Your task to perform on an android device: Search for the best rated wireless headphones on Amazon. Image 0: 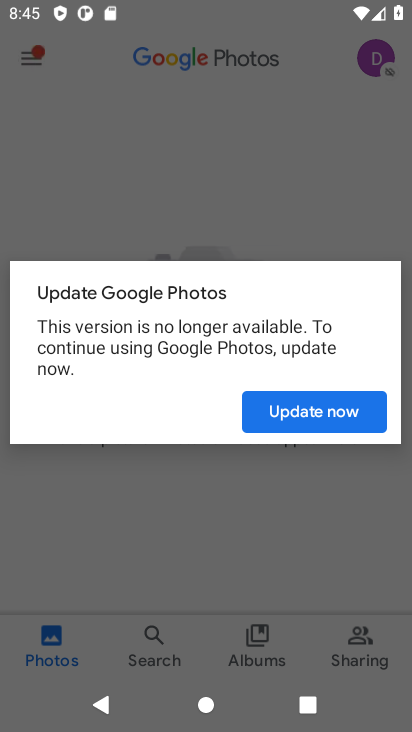
Step 0: press home button
Your task to perform on an android device: Search for the best rated wireless headphones on Amazon. Image 1: 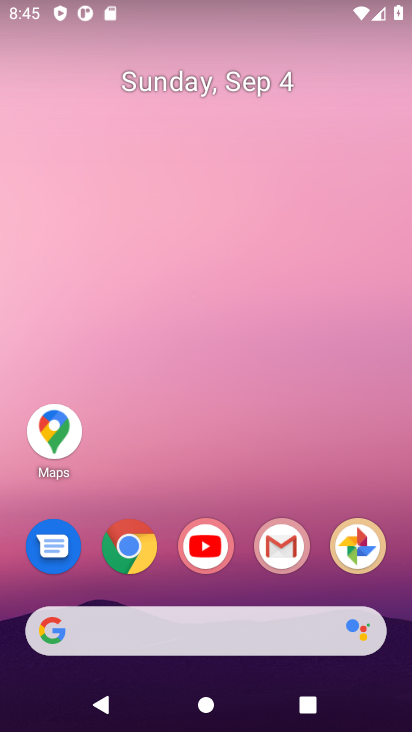
Step 1: click (133, 541)
Your task to perform on an android device: Search for the best rated wireless headphones on Amazon. Image 2: 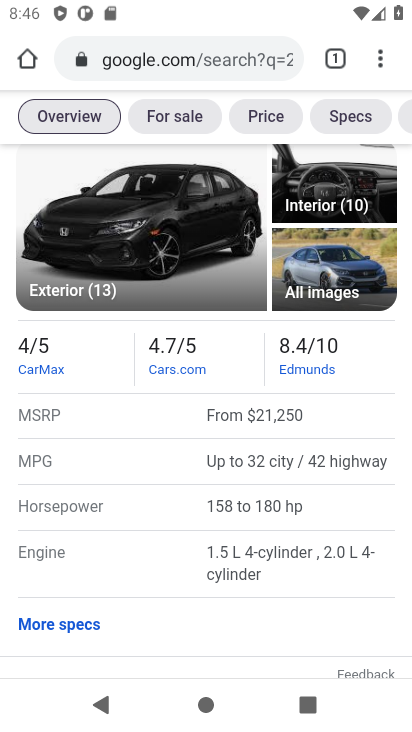
Step 2: click (170, 49)
Your task to perform on an android device: Search for the best rated wireless headphones on Amazon. Image 3: 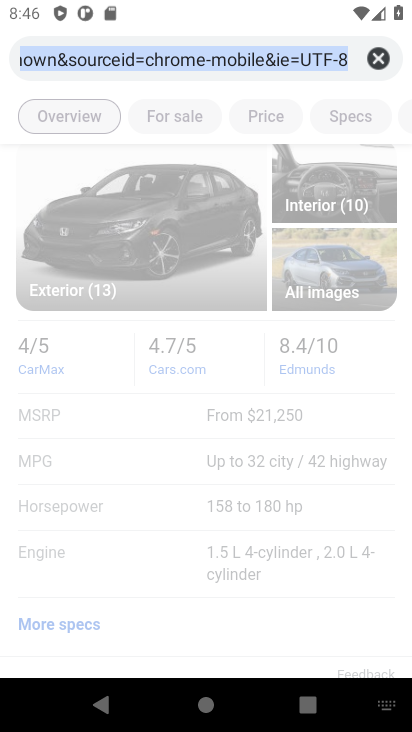
Step 3: click (370, 60)
Your task to perform on an android device: Search for the best rated wireless headphones on Amazon. Image 4: 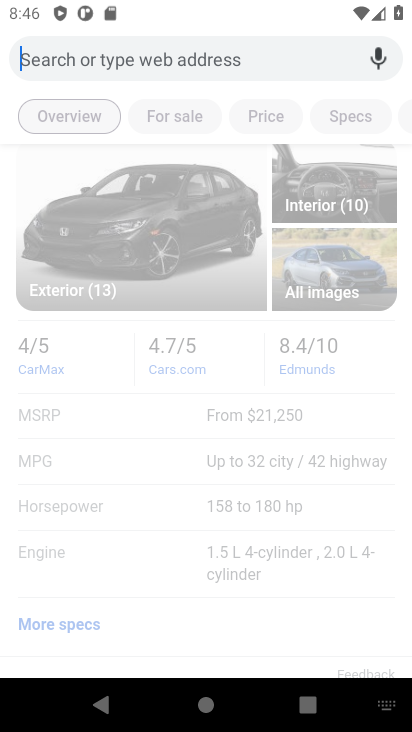
Step 4: click (127, 52)
Your task to perform on an android device: Search for the best rated wireless headphones on Amazon. Image 5: 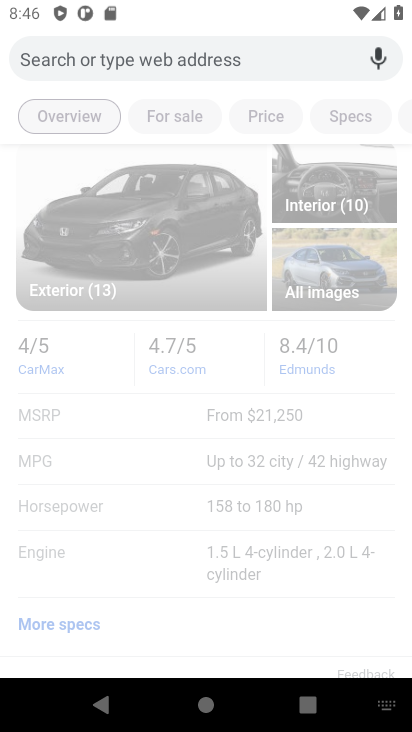
Step 5: type "amazon"
Your task to perform on an android device: Search for the best rated wireless headphones on Amazon. Image 6: 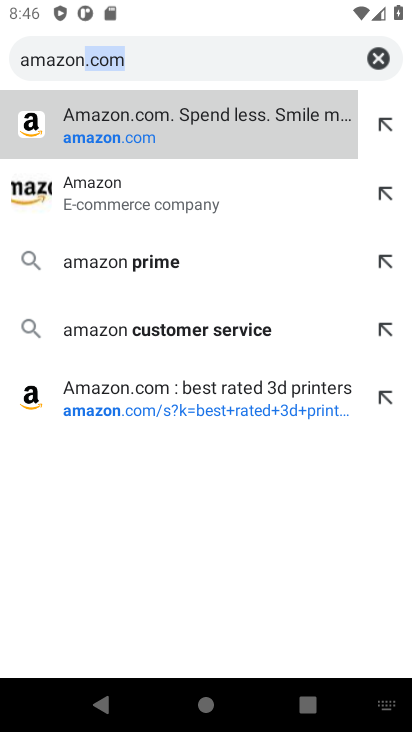
Step 6: click (96, 123)
Your task to perform on an android device: Search for the best rated wireless headphones on Amazon. Image 7: 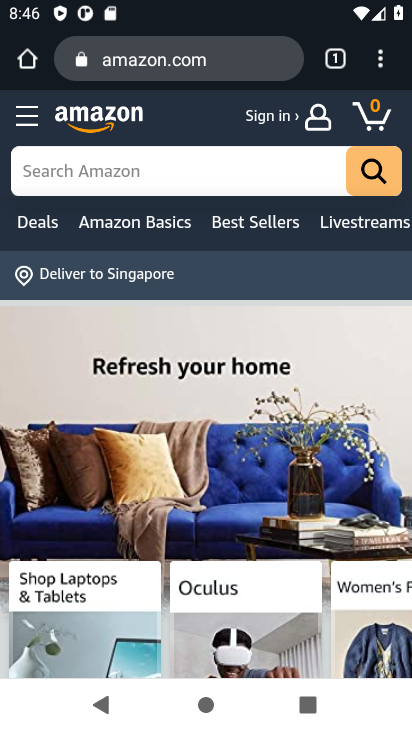
Step 7: click (109, 171)
Your task to perform on an android device: Search for the best rated wireless headphones on Amazon. Image 8: 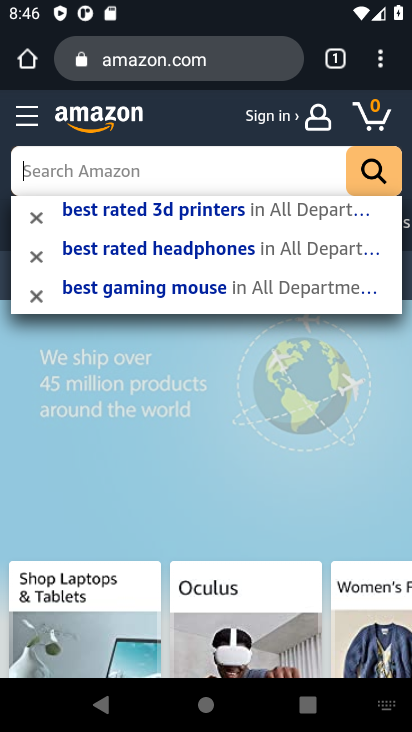
Step 8: type "best rated wireless headphones"
Your task to perform on an android device: Search for the best rated wireless headphones on Amazon. Image 9: 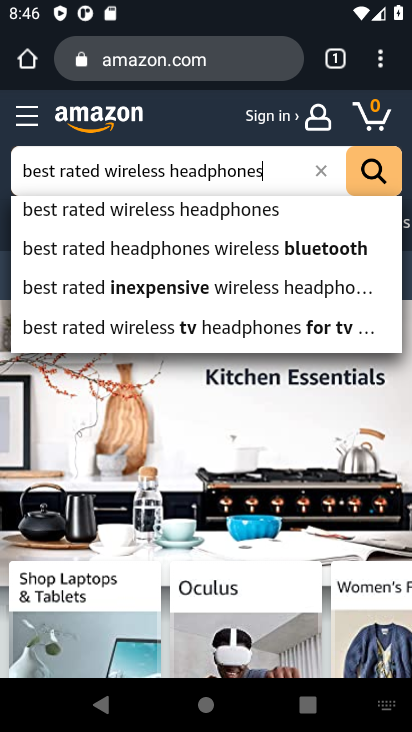
Step 9: click (166, 211)
Your task to perform on an android device: Search for the best rated wireless headphones on Amazon. Image 10: 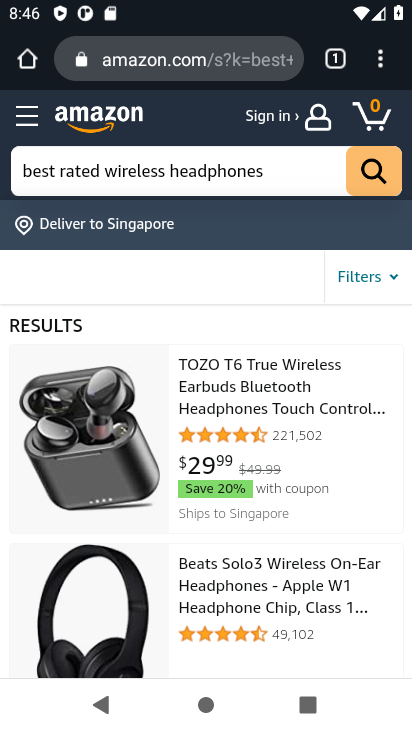
Step 10: task complete